Your task to perform on an android device: Open privacy settings Image 0: 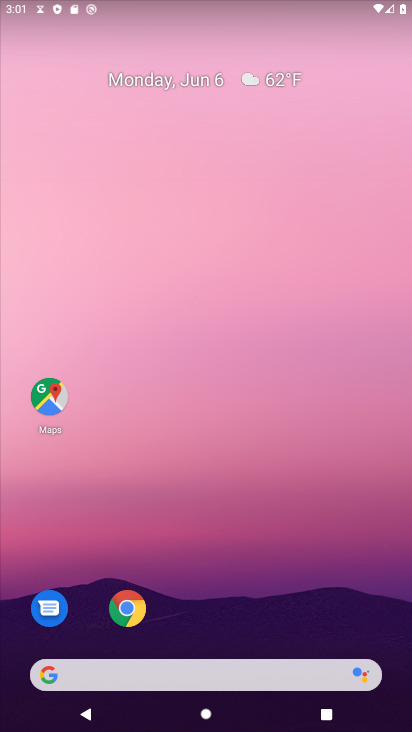
Step 0: click (136, 608)
Your task to perform on an android device: Open privacy settings Image 1: 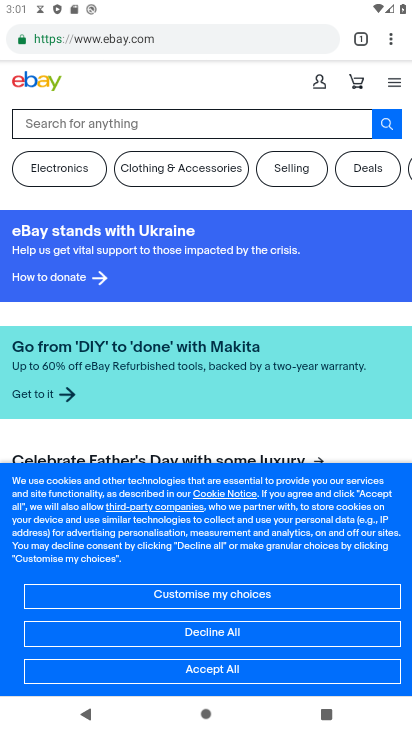
Step 1: click (392, 40)
Your task to perform on an android device: Open privacy settings Image 2: 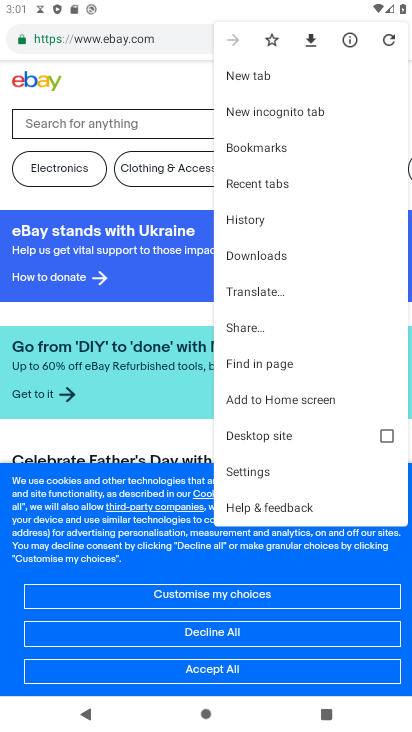
Step 2: click (267, 463)
Your task to perform on an android device: Open privacy settings Image 3: 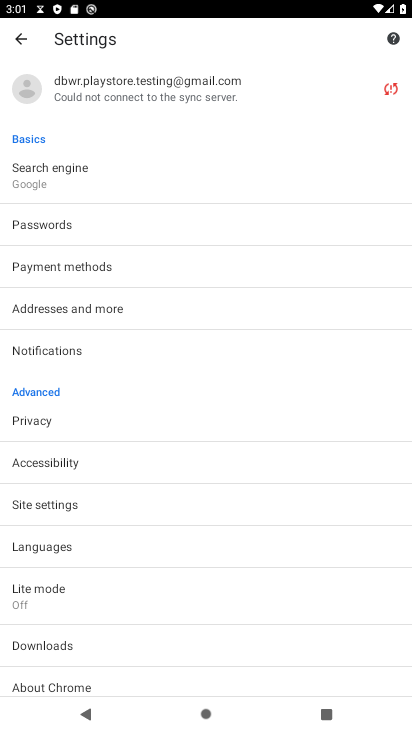
Step 3: click (30, 423)
Your task to perform on an android device: Open privacy settings Image 4: 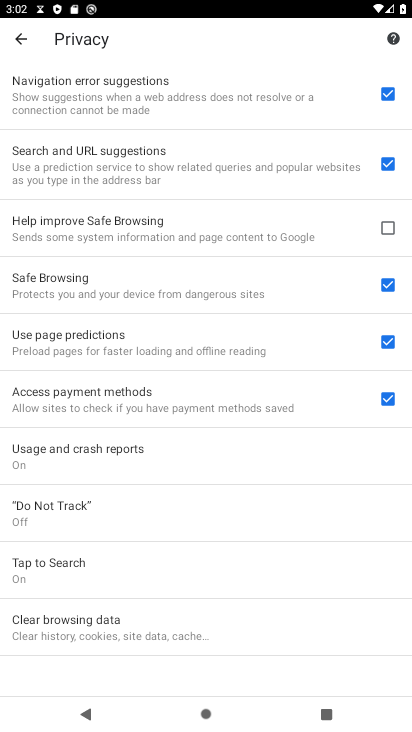
Step 4: task complete